Your task to perform on an android device: Open eBay Image 0: 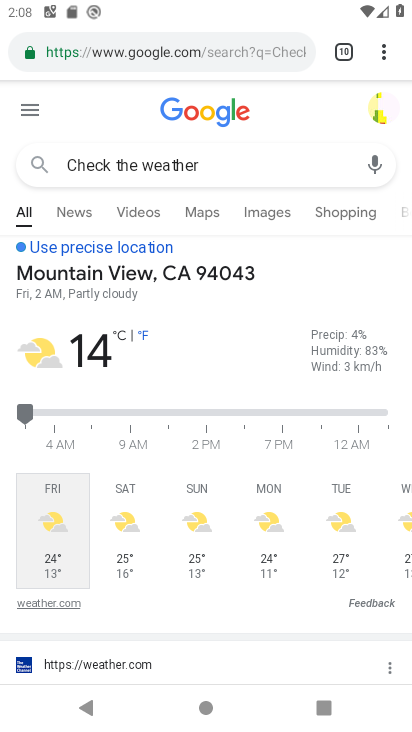
Step 0: press home button
Your task to perform on an android device: Open eBay Image 1: 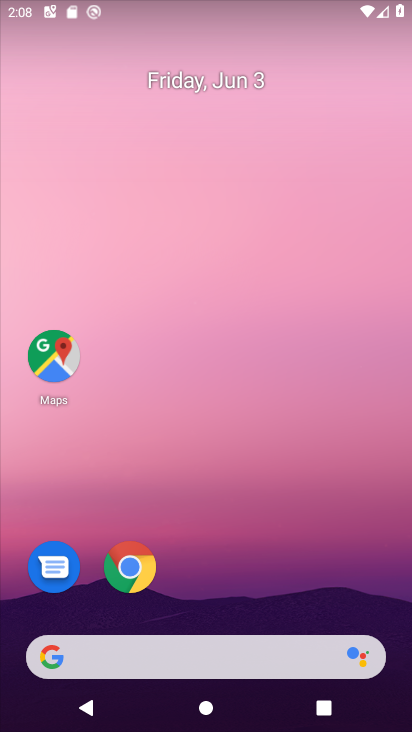
Step 1: click (129, 557)
Your task to perform on an android device: Open eBay Image 2: 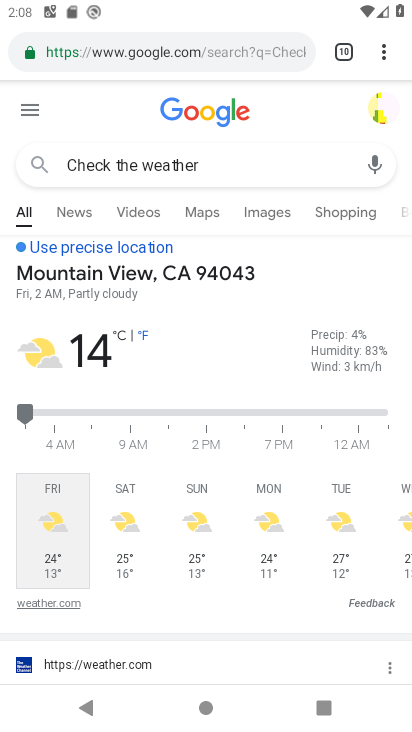
Step 2: click (383, 50)
Your task to perform on an android device: Open eBay Image 3: 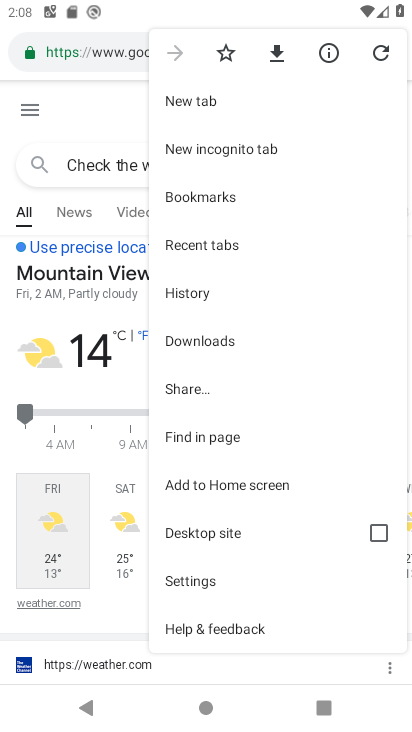
Step 3: click (222, 99)
Your task to perform on an android device: Open eBay Image 4: 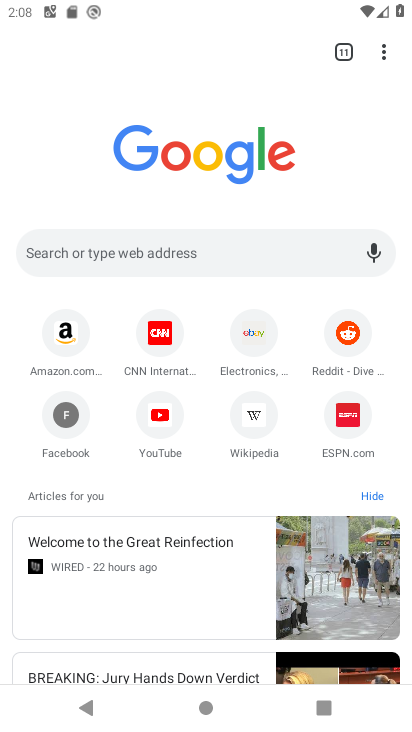
Step 4: click (252, 335)
Your task to perform on an android device: Open eBay Image 5: 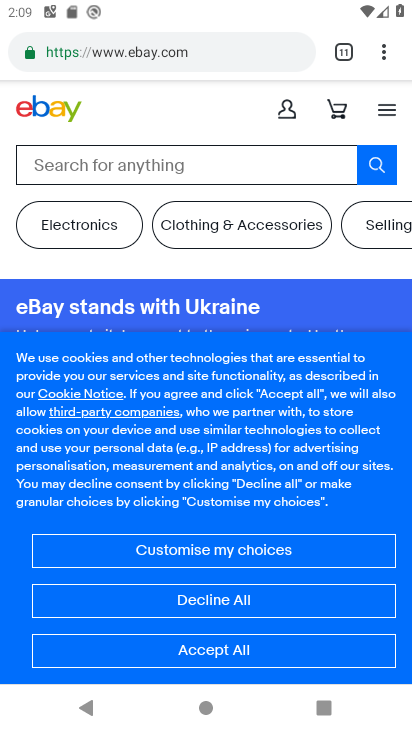
Step 5: task complete